Your task to perform on an android device: add a contact in the contacts app Image 0: 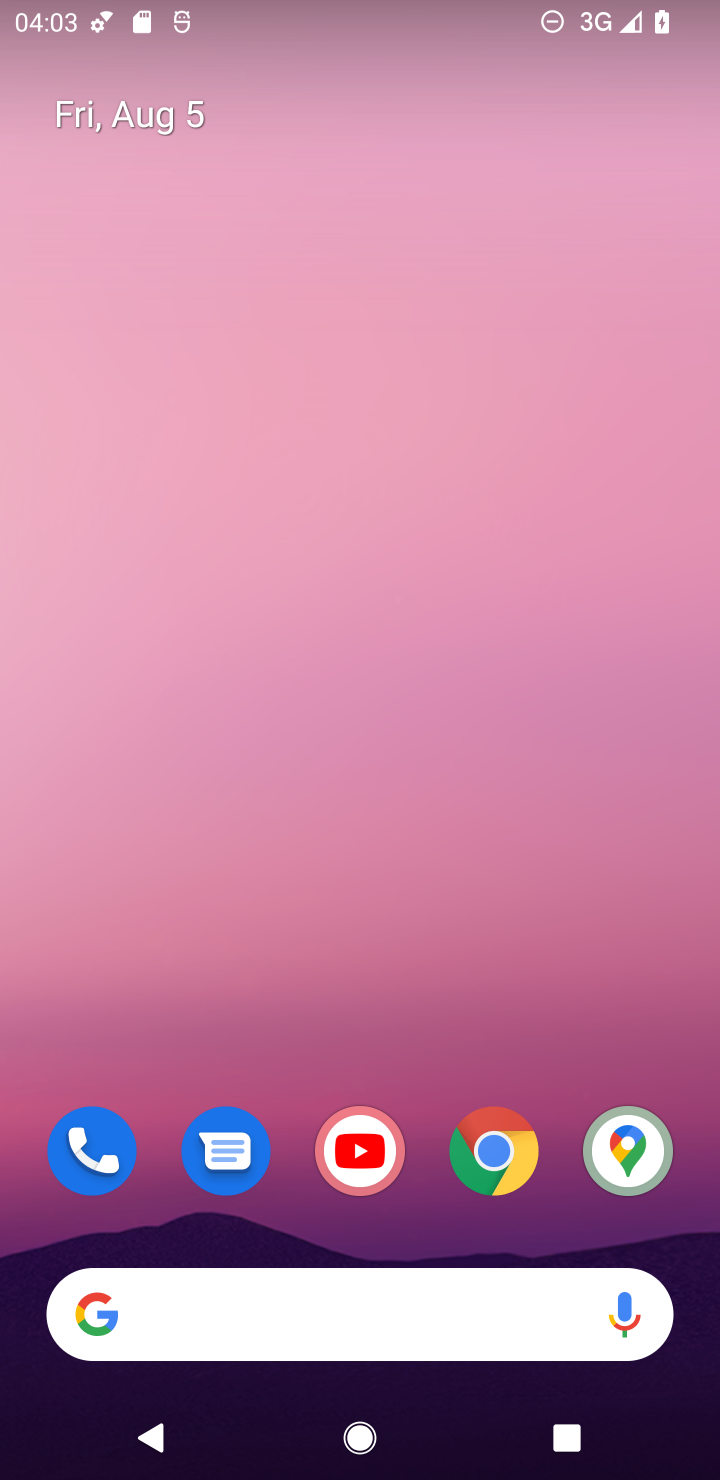
Step 0: drag from (393, 968) to (284, 120)
Your task to perform on an android device: add a contact in the contacts app Image 1: 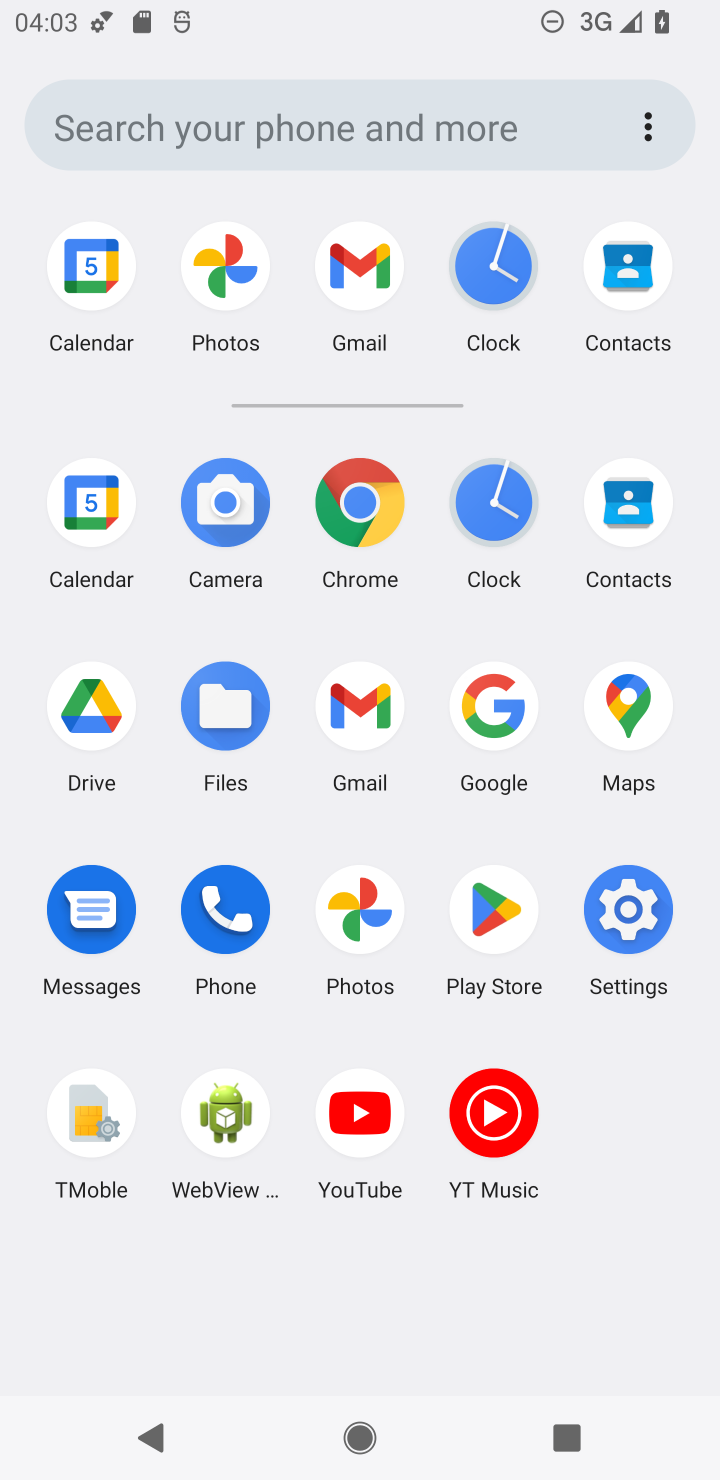
Step 1: click (614, 509)
Your task to perform on an android device: add a contact in the contacts app Image 2: 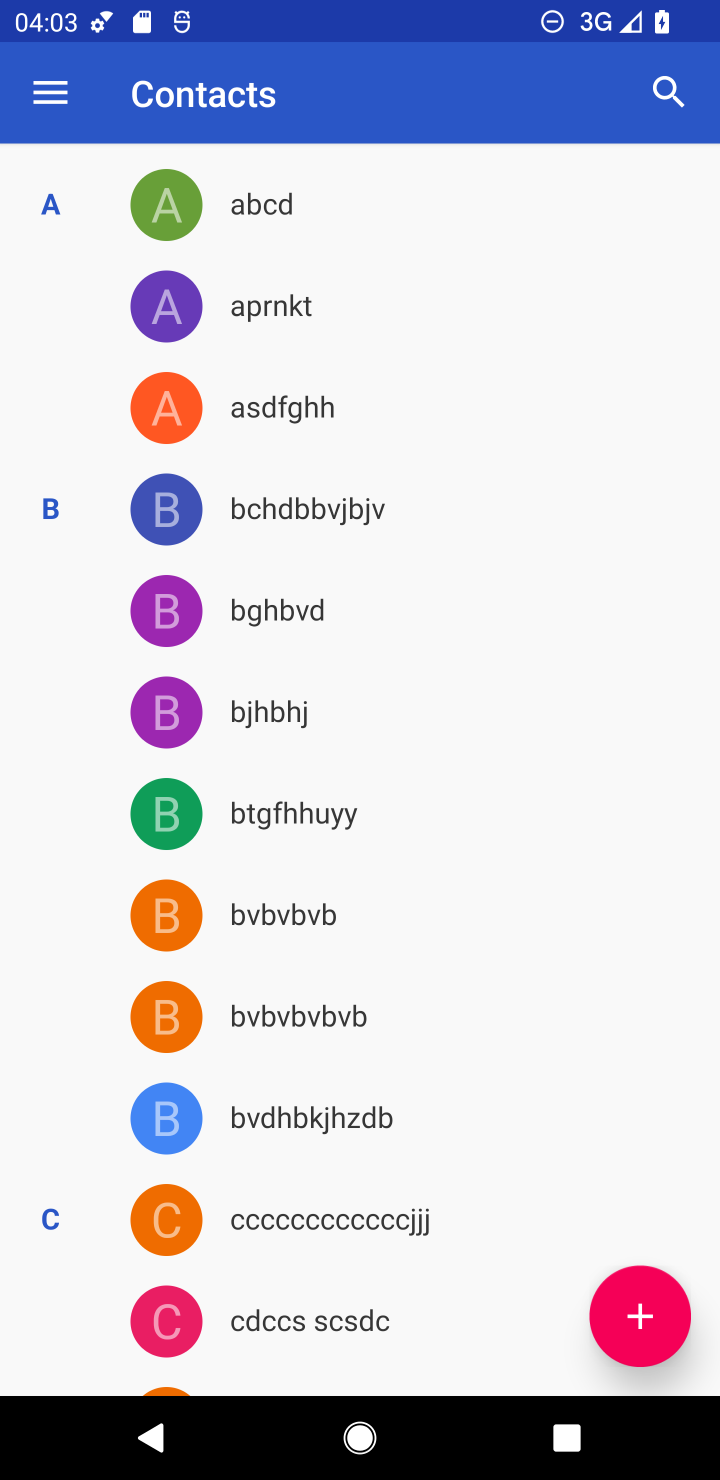
Step 2: click (633, 1300)
Your task to perform on an android device: add a contact in the contacts app Image 3: 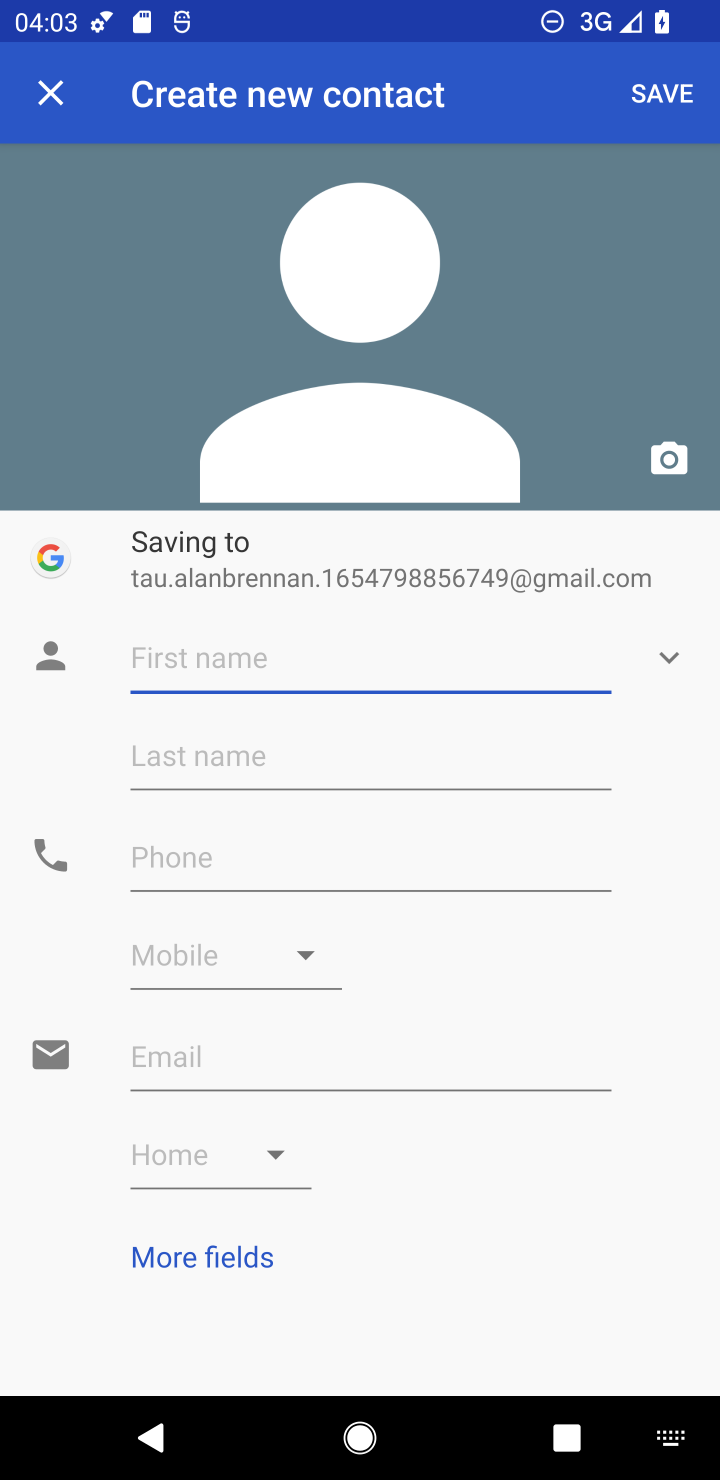
Step 3: type "mzlapq"
Your task to perform on an android device: add a contact in the contacts app Image 4: 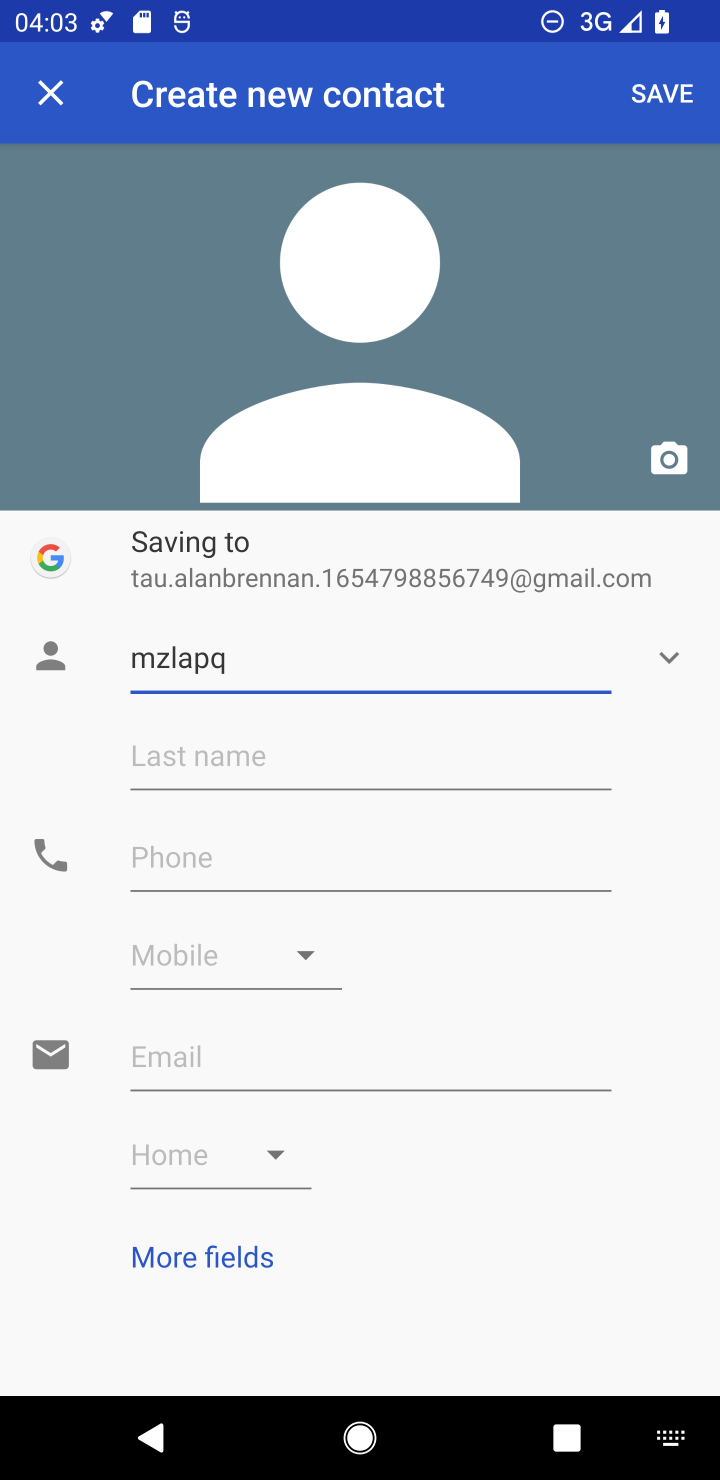
Step 4: click (341, 877)
Your task to perform on an android device: add a contact in the contacts app Image 5: 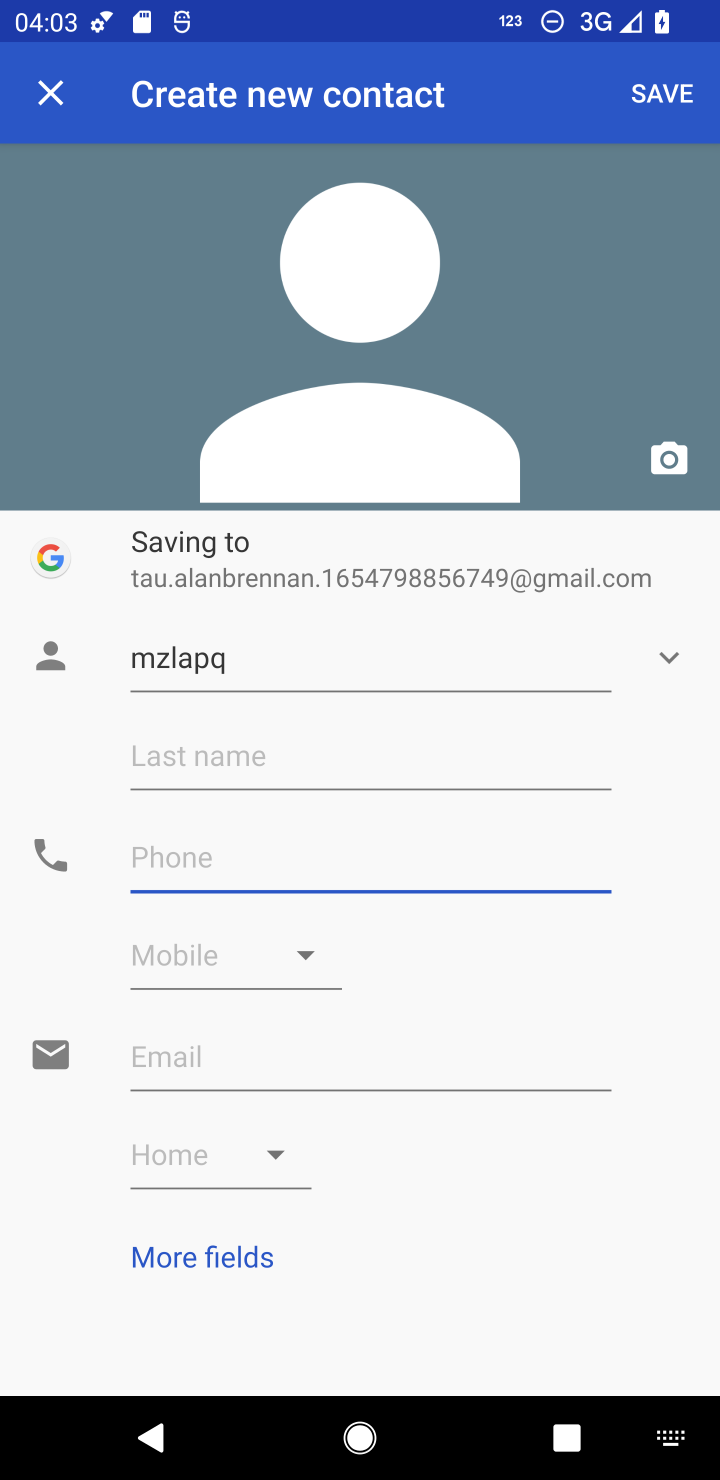
Step 5: type "1029384756"
Your task to perform on an android device: add a contact in the contacts app Image 6: 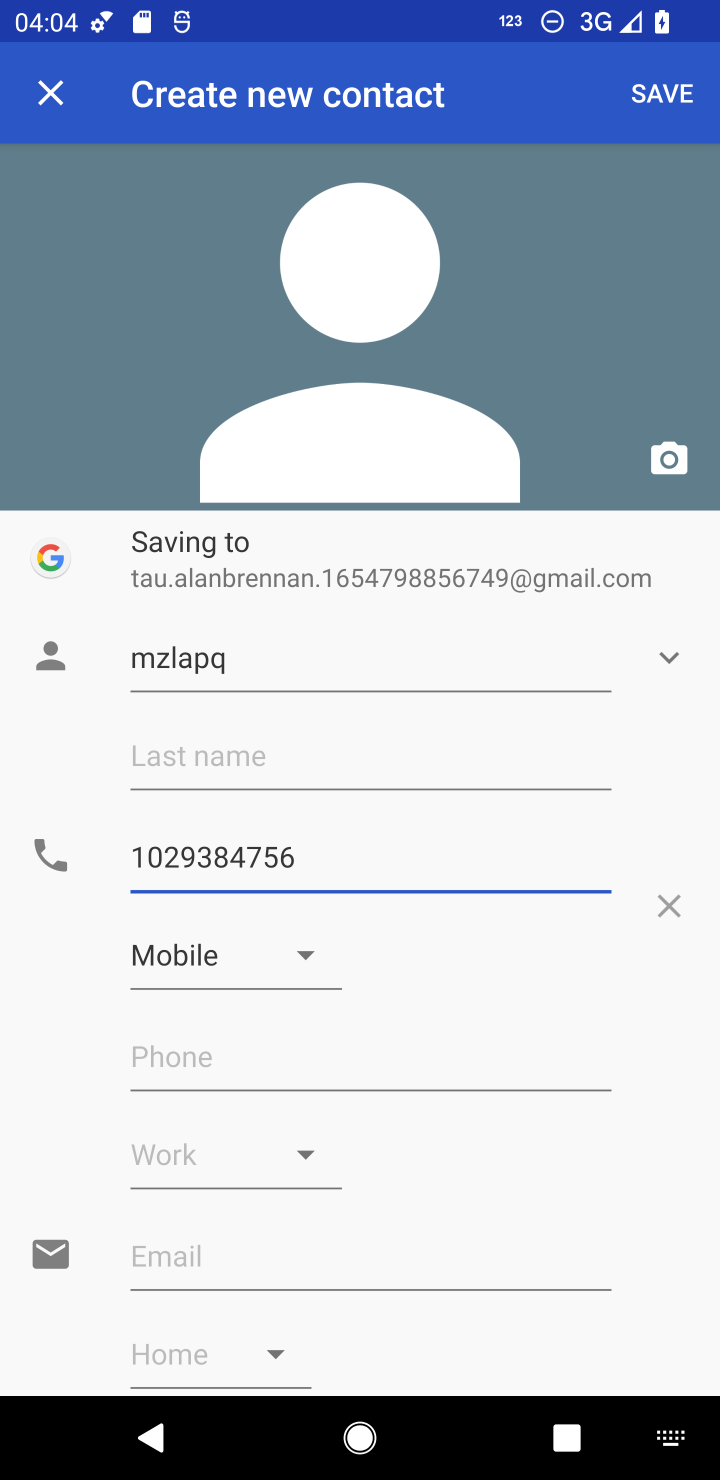
Step 6: click (662, 93)
Your task to perform on an android device: add a contact in the contacts app Image 7: 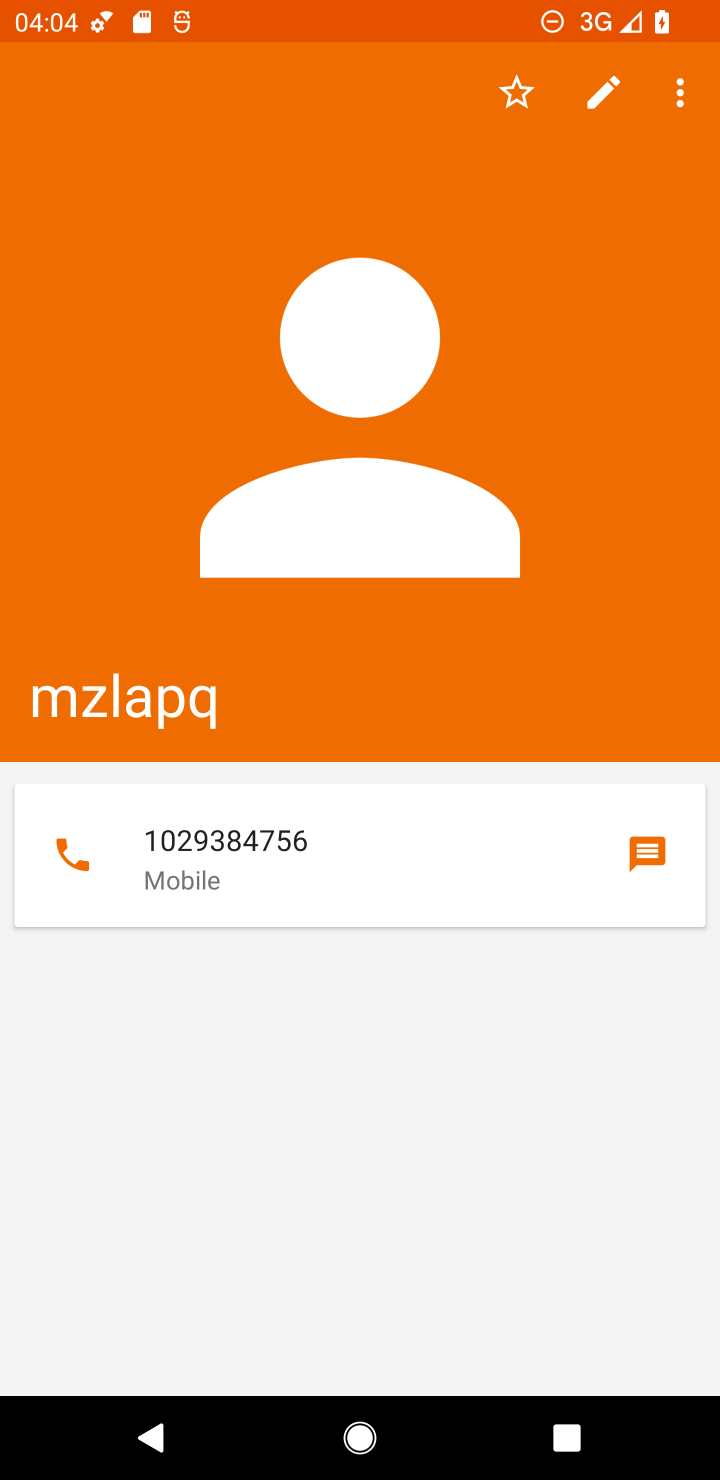
Step 7: task complete